Your task to perform on an android device: Set the phone to "Do not disturb". Image 0: 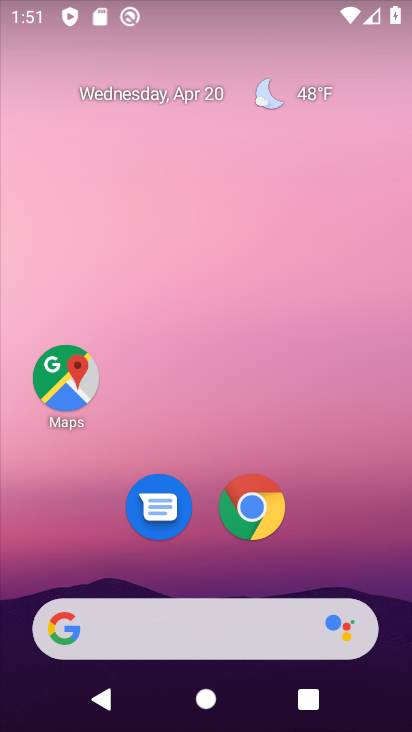
Step 0: drag from (210, 698) to (207, 103)
Your task to perform on an android device: Set the phone to "Do not disturb". Image 1: 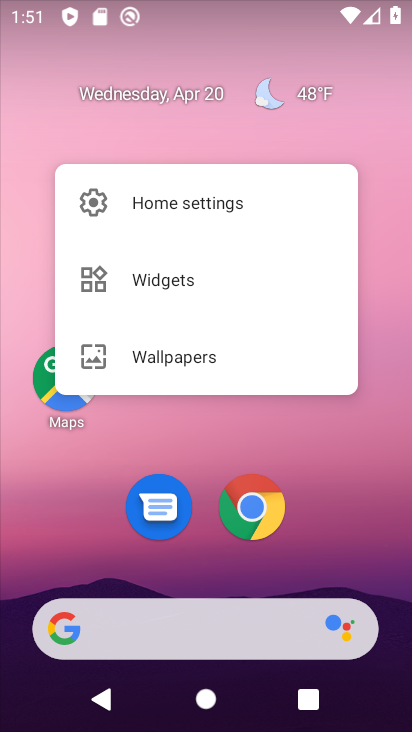
Step 1: click (188, 412)
Your task to perform on an android device: Set the phone to "Do not disturb". Image 2: 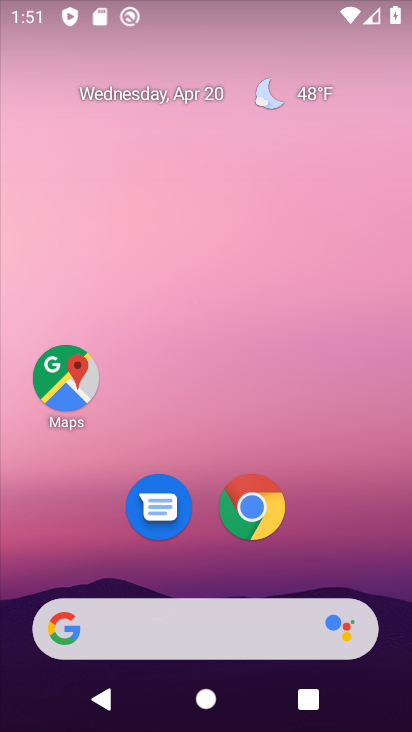
Step 2: drag from (210, 708) to (210, 69)
Your task to perform on an android device: Set the phone to "Do not disturb". Image 3: 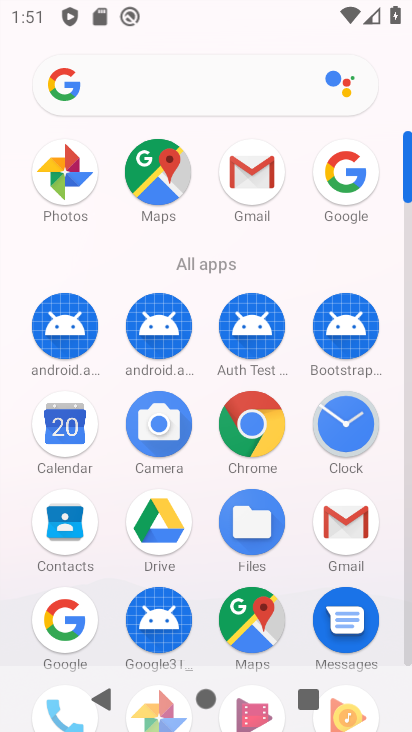
Step 3: drag from (206, 672) to (211, 223)
Your task to perform on an android device: Set the phone to "Do not disturb". Image 4: 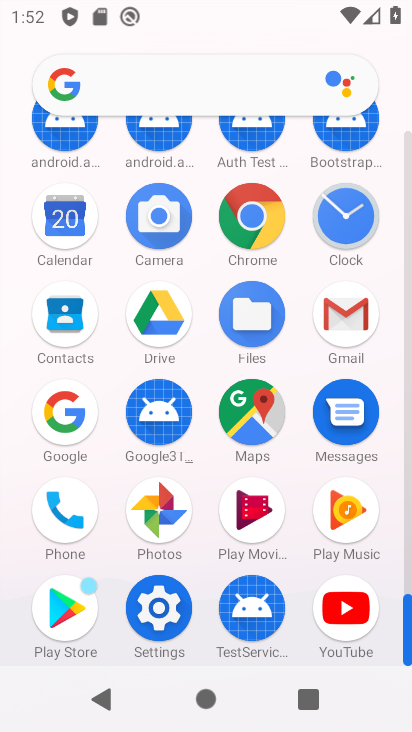
Step 4: click (161, 605)
Your task to perform on an android device: Set the phone to "Do not disturb". Image 5: 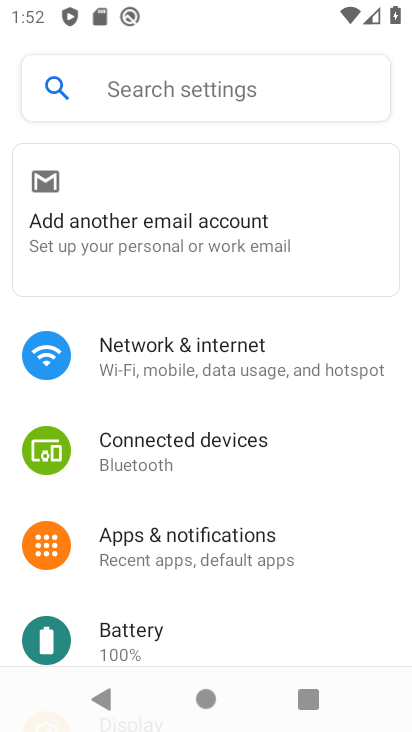
Step 5: drag from (199, 642) to (220, 235)
Your task to perform on an android device: Set the phone to "Do not disturb". Image 6: 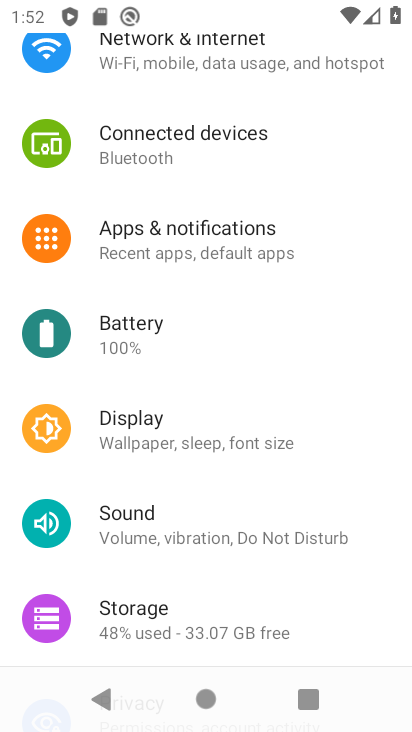
Step 6: click (187, 538)
Your task to perform on an android device: Set the phone to "Do not disturb". Image 7: 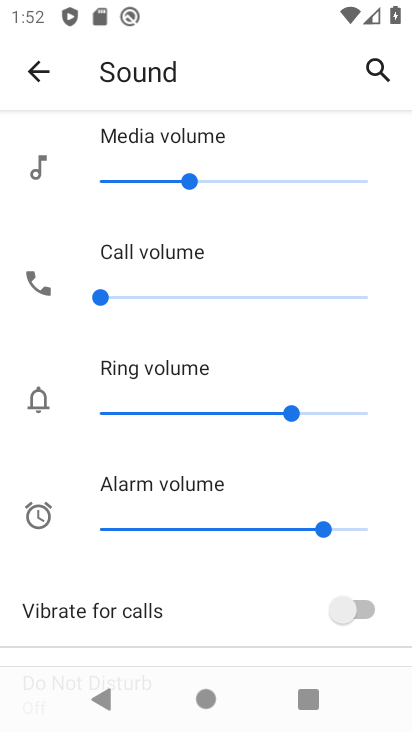
Step 7: drag from (188, 638) to (201, 233)
Your task to perform on an android device: Set the phone to "Do not disturb". Image 8: 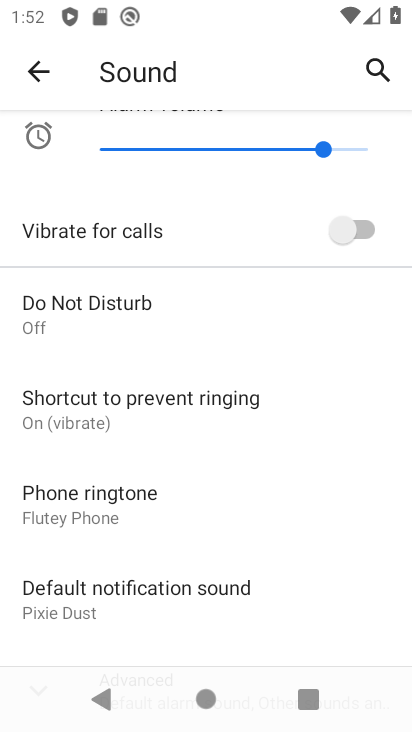
Step 8: click (81, 301)
Your task to perform on an android device: Set the phone to "Do not disturb". Image 9: 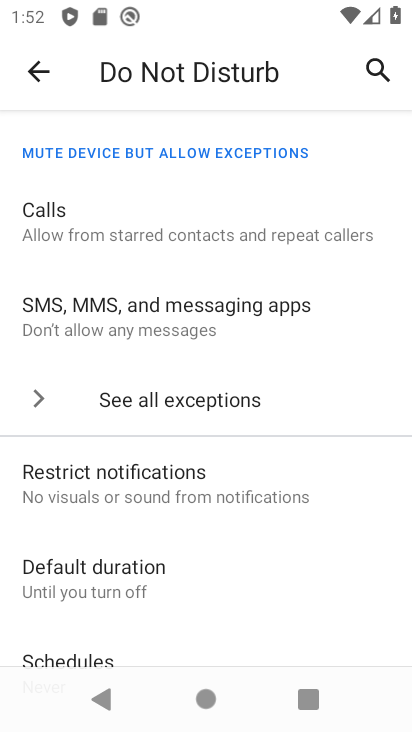
Step 9: drag from (168, 625) to (218, 205)
Your task to perform on an android device: Set the phone to "Do not disturb". Image 10: 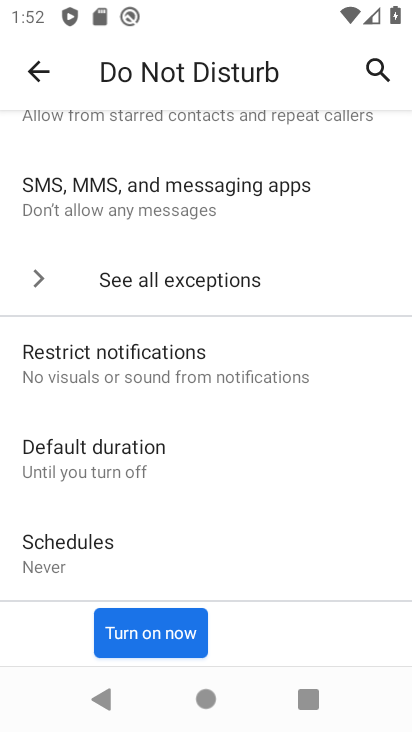
Step 10: click (153, 631)
Your task to perform on an android device: Set the phone to "Do not disturb". Image 11: 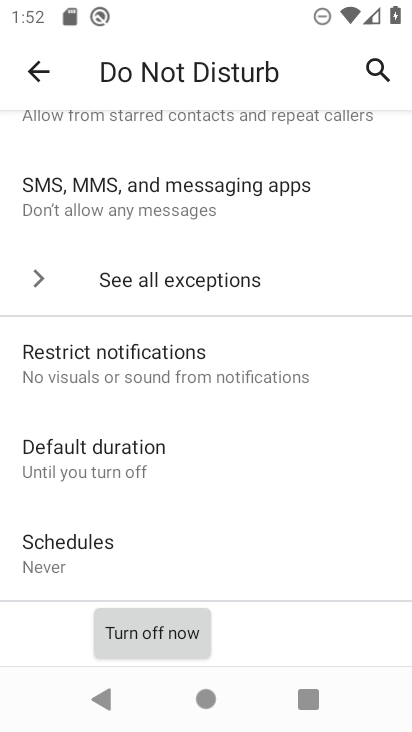
Step 11: task complete